Your task to perform on an android device: make emails show in primary in the gmail app Image 0: 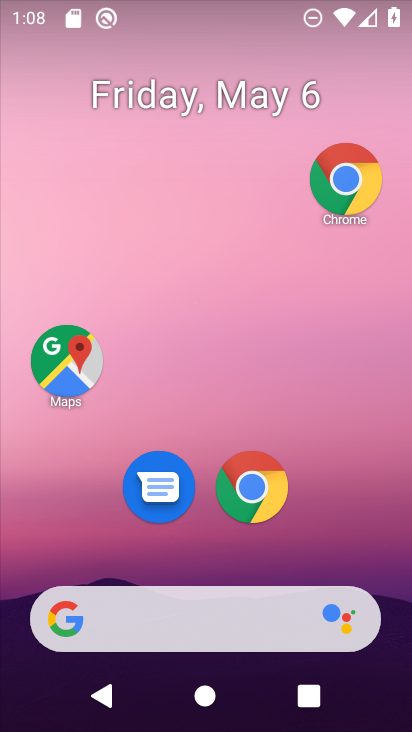
Step 0: drag from (320, 515) to (313, 200)
Your task to perform on an android device: make emails show in primary in the gmail app Image 1: 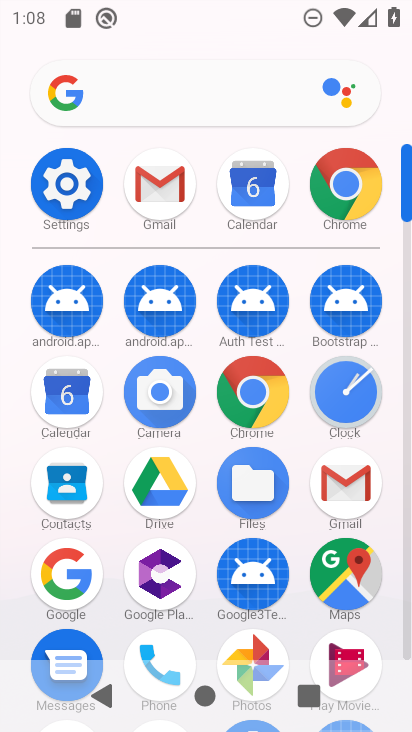
Step 1: click (152, 204)
Your task to perform on an android device: make emails show in primary in the gmail app Image 2: 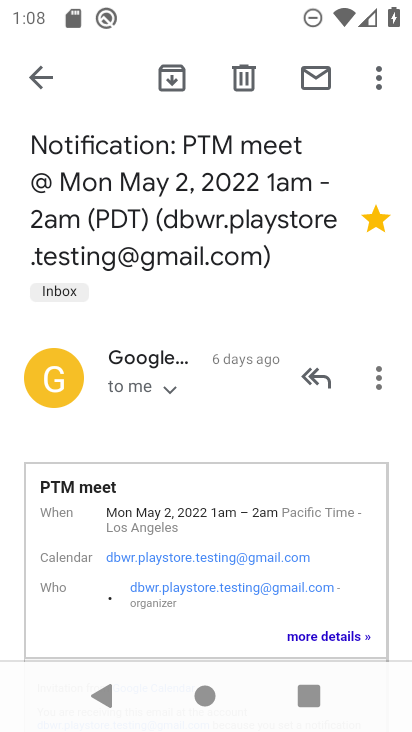
Step 2: click (29, 76)
Your task to perform on an android device: make emails show in primary in the gmail app Image 3: 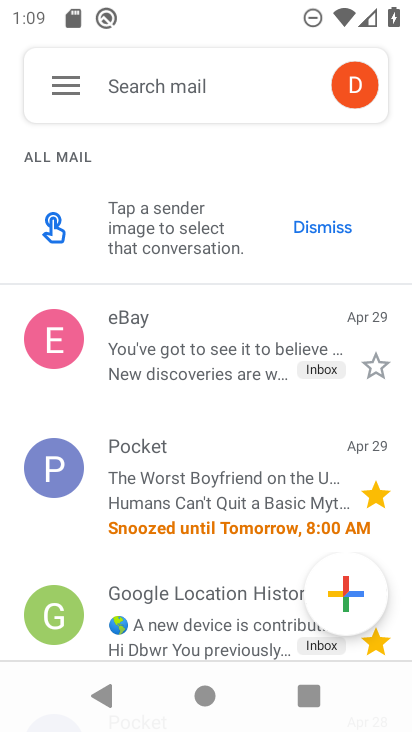
Step 3: click (54, 95)
Your task to perform on an android device: make emails show in primary in the gmail app Image 4: 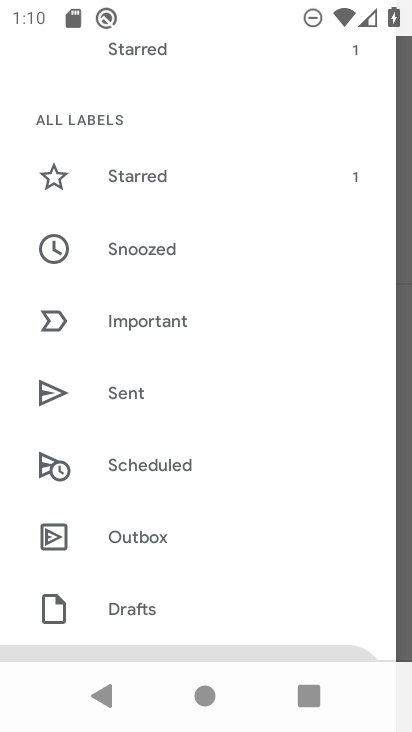
Step 4: task complete